Your task to perform on an android device: create a new album in the google photos Image 0: 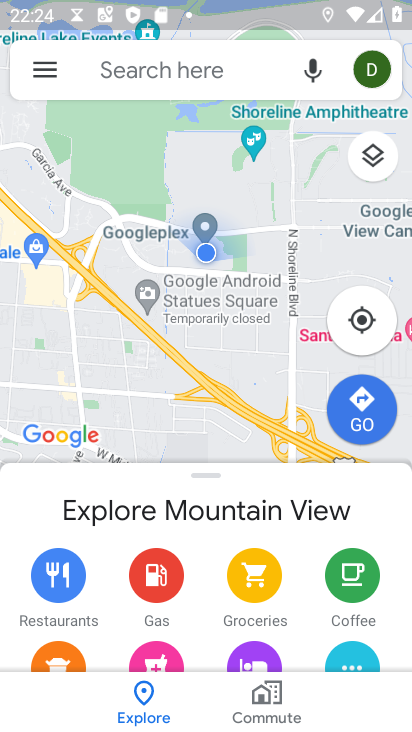
Step 0: drag from (204, 663) to (279, 111)
Your task to perform on an android device: create a new album in the google photos Image 1: 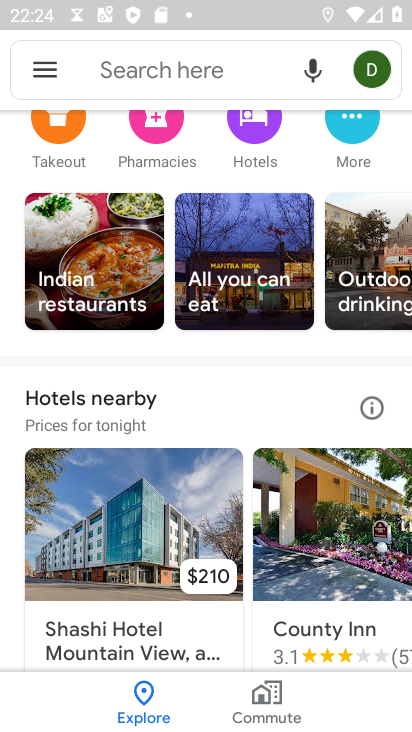
Step 1: press home button
Your task to perform on an android device: create a new album in the google photos Image 2: 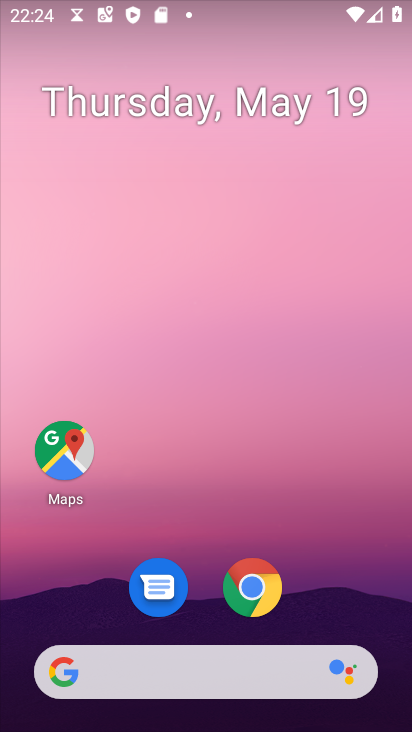
Step 2: drag from (171, 656) to (236, 122)
Your task to perform on an android device: create a new album in the google photos Image 3: 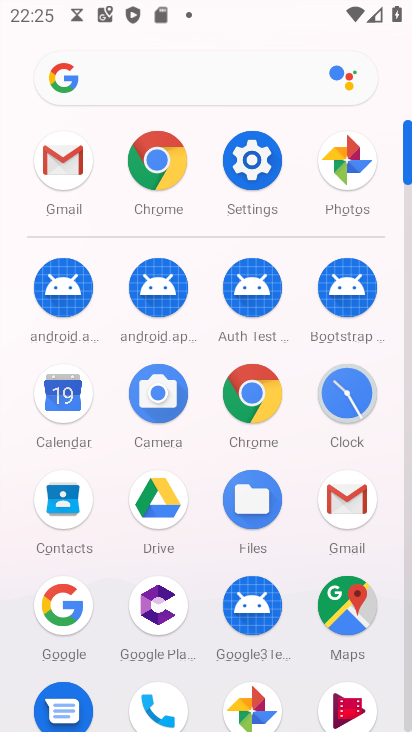
Step 3: click (253, 715)
Your task to perform on an android device: create a new album in the google photos Image 4: 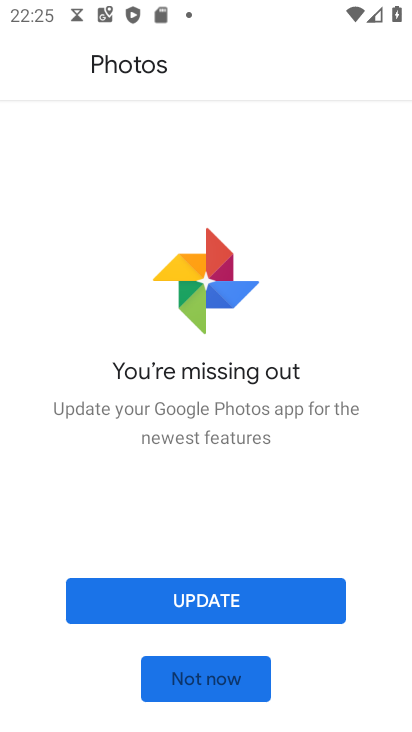
Step 4: click (194, 672)
Your task to perform on an android device: create a new album in the google photos Image 5: 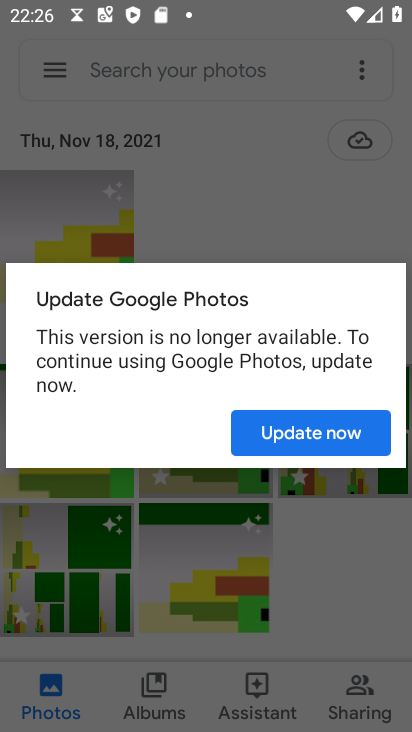
Step 5: click (289, 437)
Your task to perform on an android device: create a new album in the google photos Image 6: 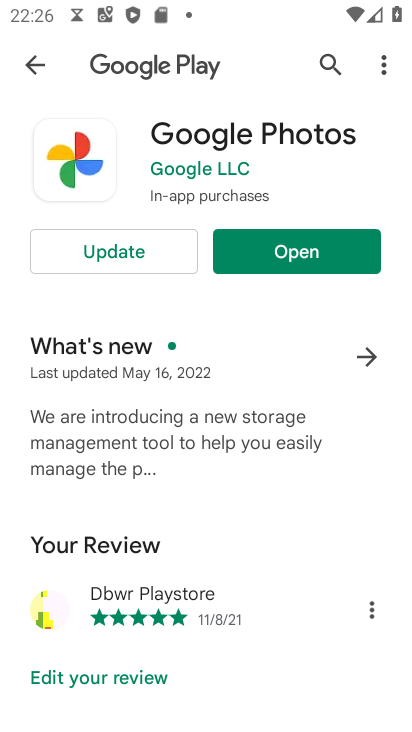
Step 6: click (288, 268)
Your task to perform on an android device: create a new album in the google photos Image 7: 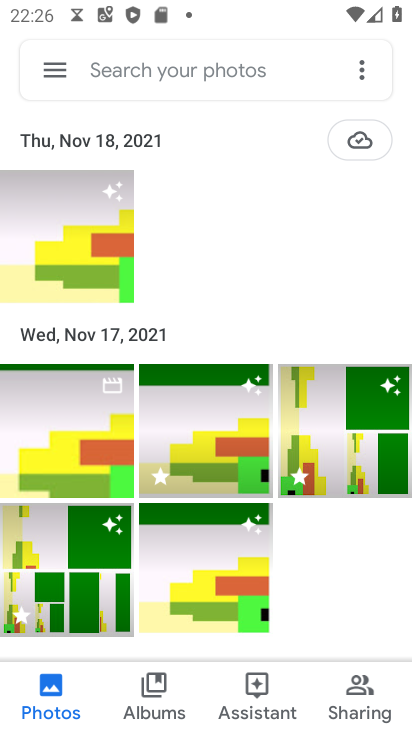
Step 7: click (161, 706)
Your task to perform on an android device: create a new album in the google photos Image 8: 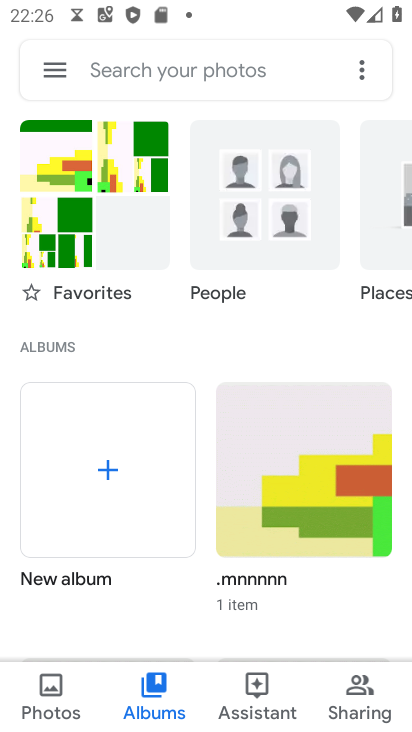
Step 8: click (122, 446)
Your task to perform on an android device: create a new album in the google photos Image 9: 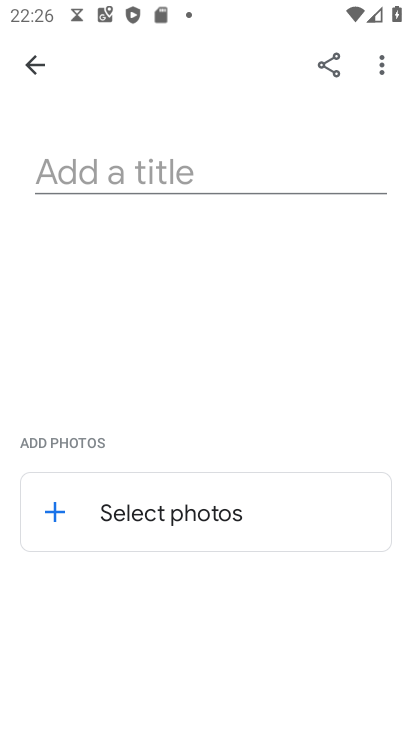
Step 9: click (181, 177)
Your task to perform on an android device: create a new album in the google photos Image 10: 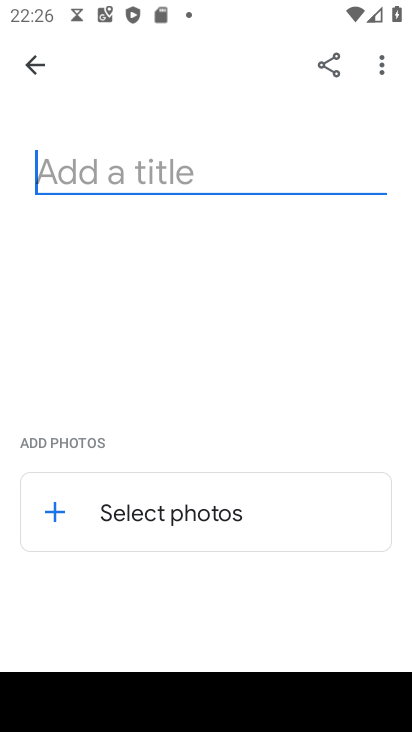
Step 10: type "hvnbvc"
Your task to perform on an android device: create a new album in the google photos Image 11: 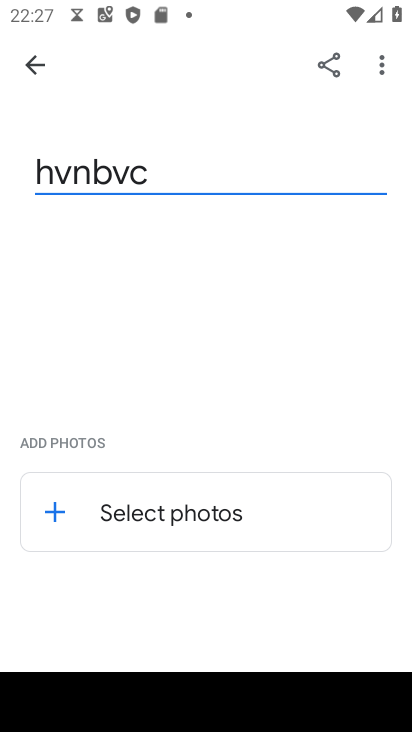
Step 11: click (311, 507)
Your task to perform on an android device: create a new album in the google photos Image 12: 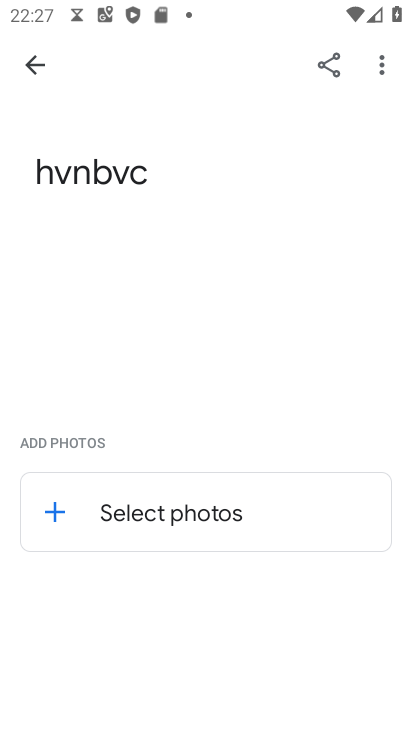
Step 12: click (157, 520)
Your task to perform on an android device: create a new album in the google photos Image 13: 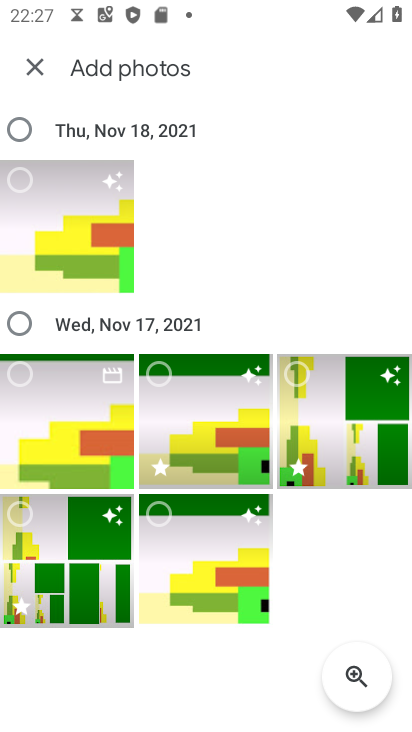
Step 13: click (28, 128)
Your task to perform on an android device: create a new album in the google photos Image 14: 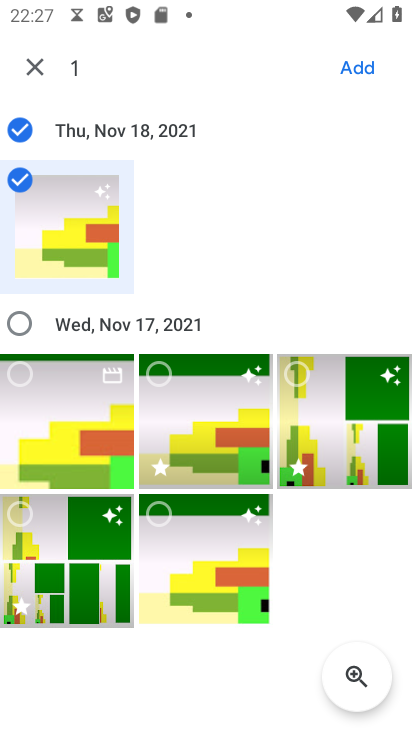
Step 14: click (21, 330)
Your task to perform on an android device: create a new album in the google photos Image 15: 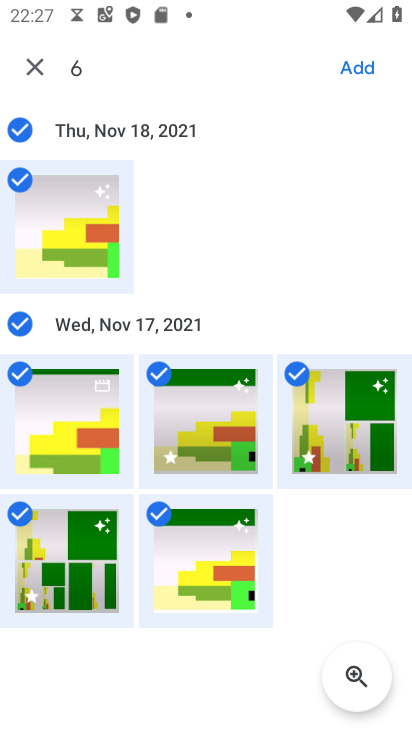
Step 15: click (360, 72)
Your task to perform on an android device: create a new album in the google photos Image 16: 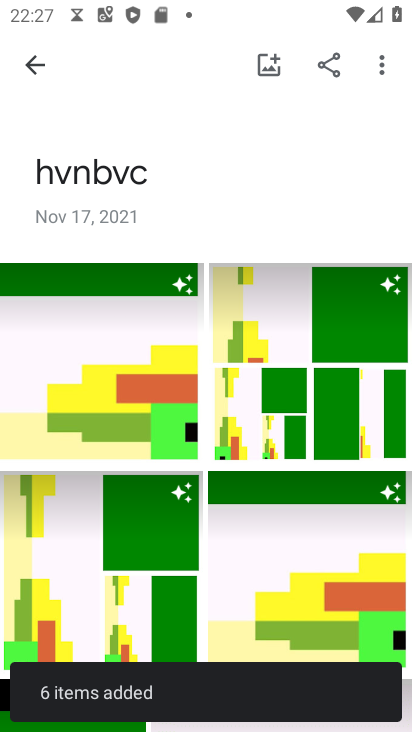
Step 16: task complete